Your task to perform on an android device: Show me popular videos on Youtube Image 0: 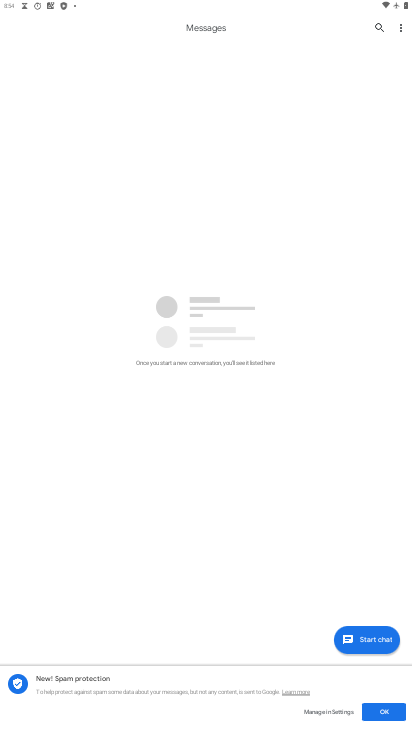
Step 0: drag from (277, 548) to (402, 129)
Your task to perform on an android device: Show me popular videos on Youtube Image 1: 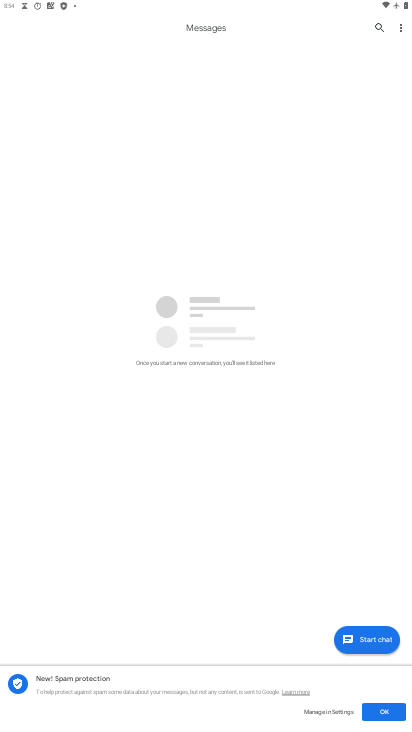
Step 1: drag from (223, 658) to (278, 292)
Your task to perform on an android device: Show me popular videos on Youtube Image 2: 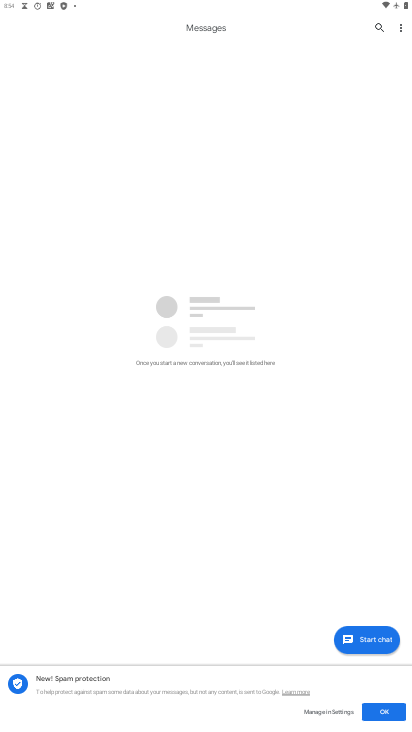
Step 2: drag from (184, 472) to (294, 187)
Your task to perform on an android device: Show me popular videos on Youtube Image 3: 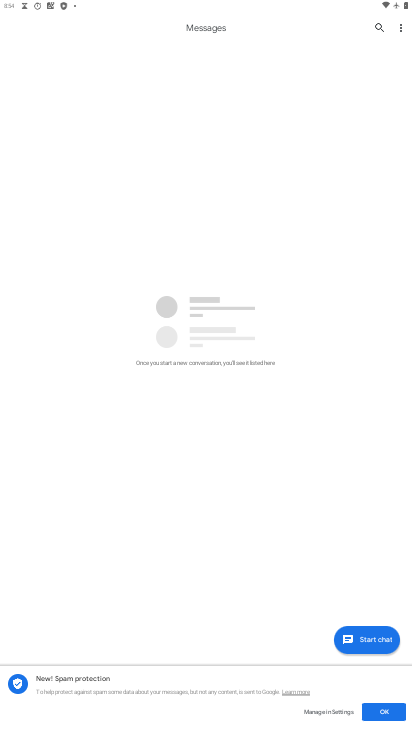
Step 3: drag from (217, 524) to (230, 303)
Your task to perform on an android device: Show me popular videos on Youtube Image 4: 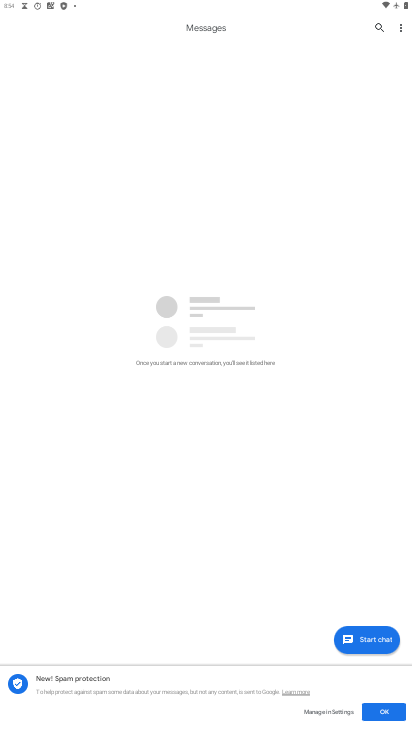
Step 4: drag from (168, 561) to (231, 181)
Your task to perform on an android device: Show me popular videos on Youtube Image 5: 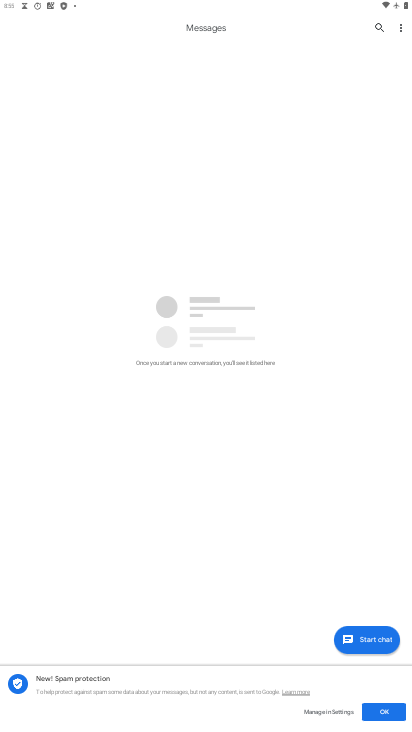
Step 5: press home button
Your task to perform on an android device: Show me popular videos on Youtube Image 6: 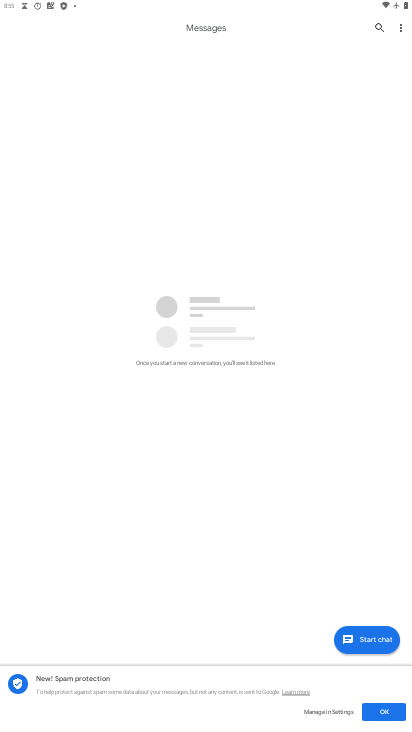
Step 6: press home button
Your task to perform on an android device: Show me popular videos on Youtube Image 7: 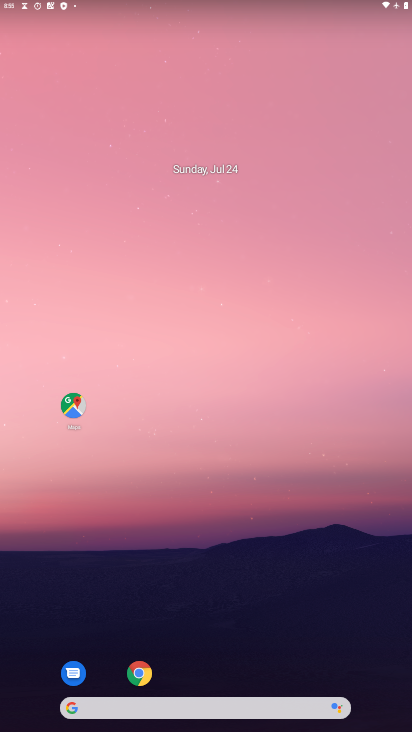
Step 7: drag from (207, 664) to (381, 8)
Your task to perform on an android device: Show me popular videos on Youtube Image 8: 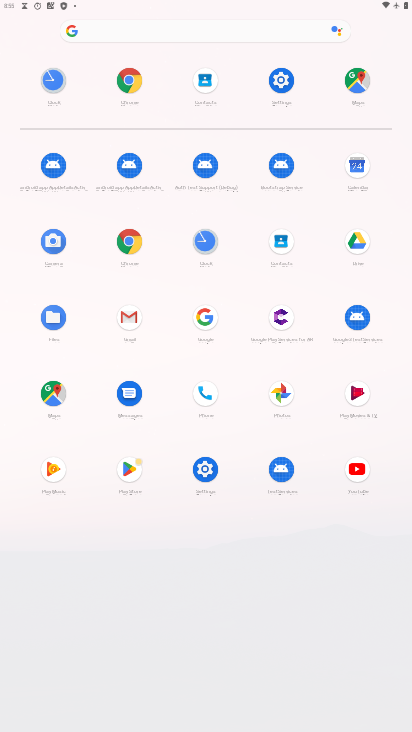
Step 8: click (358, 461)
Your task to perform on an android device: Show me popular videos on Youtube Image 9: 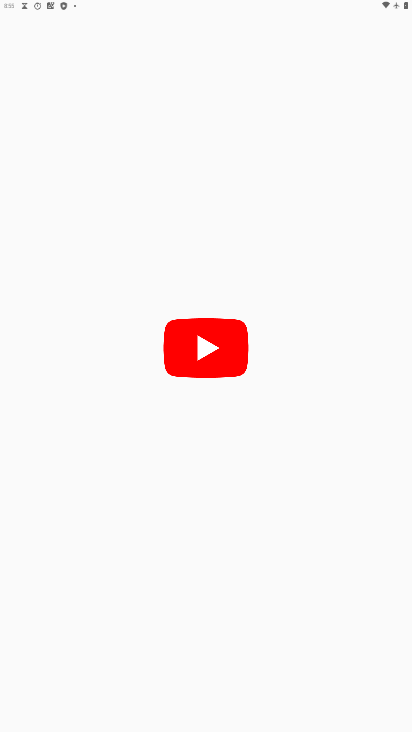
Step 9: task complete